Your task to perform on an android device: change text size in settings app Image 0: 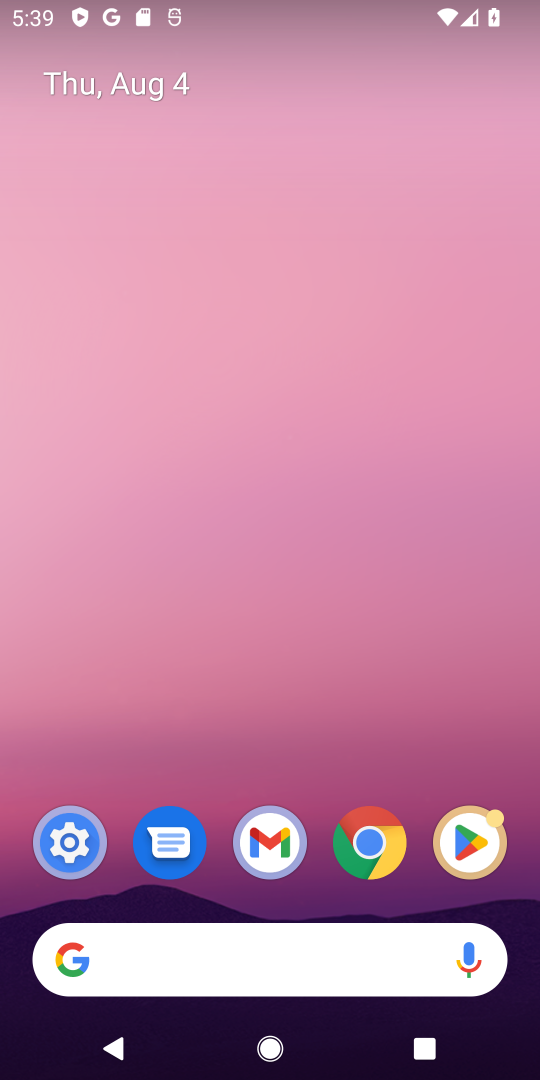
Step 0: drag from (433, 358) to (461, 119)
Your task to perform on an android device: change text size in settings app Image 1: 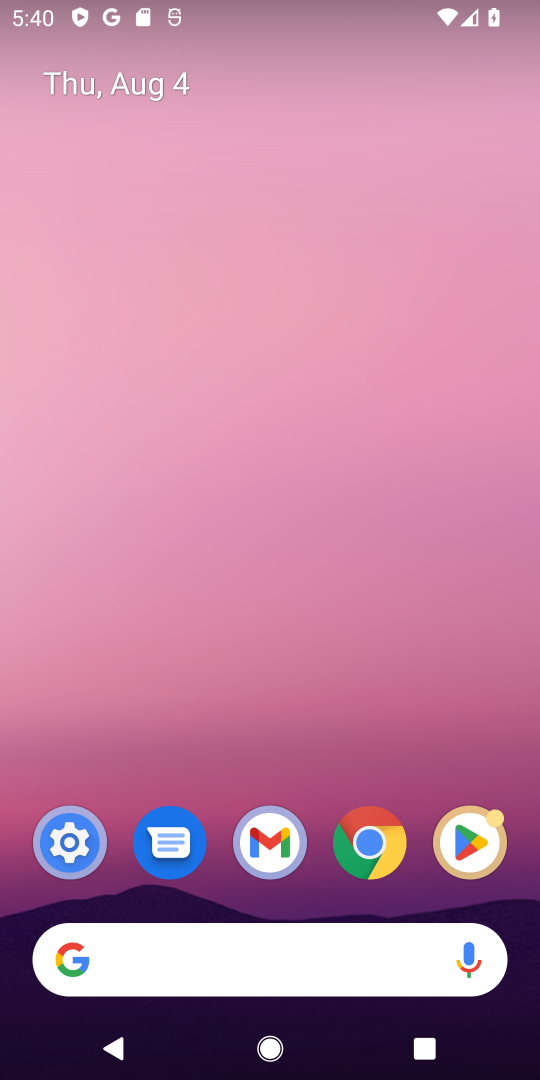
Step 1: drag from (399, 663) to (430, 93)
Your task to perform on an android device: change text size in settings app Image 2: 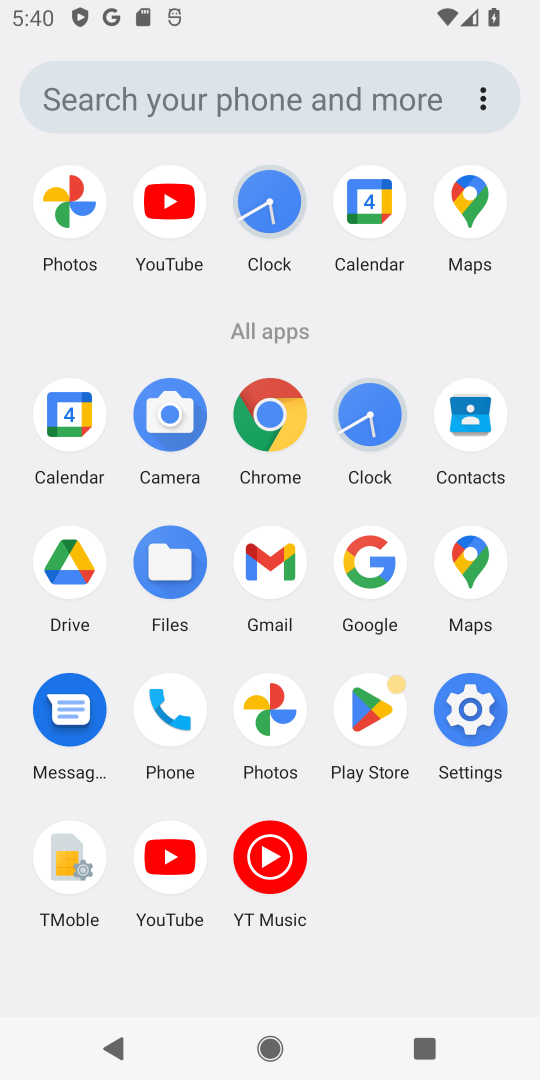
Step 2: click (475, 702)
Your task to perform on an android device: change text size in settings app Image 3: 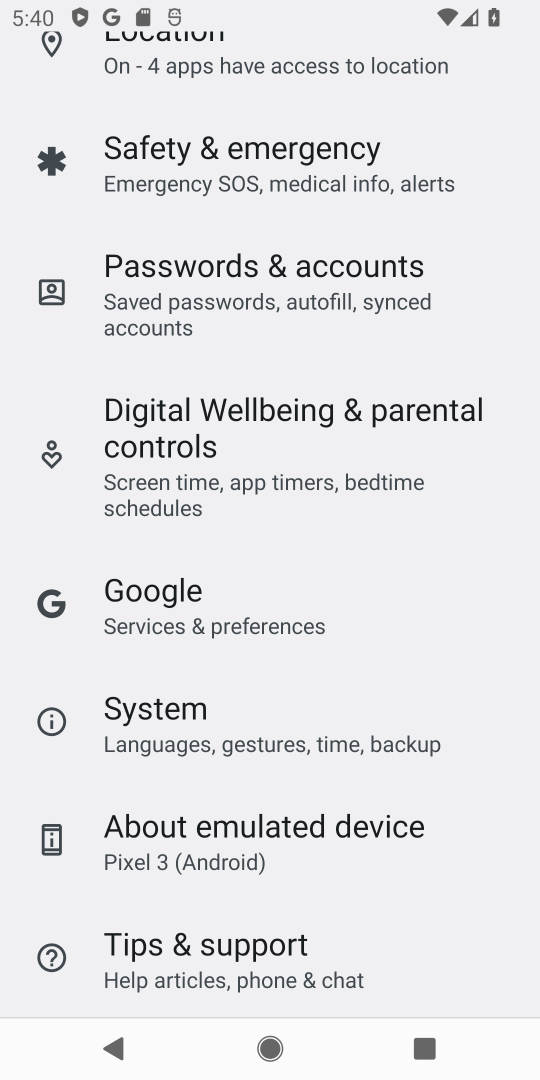
Step 3: drag from (389, 217) to (159, 963)
Your task to perform on an android device: change text size in settings app Image 4: 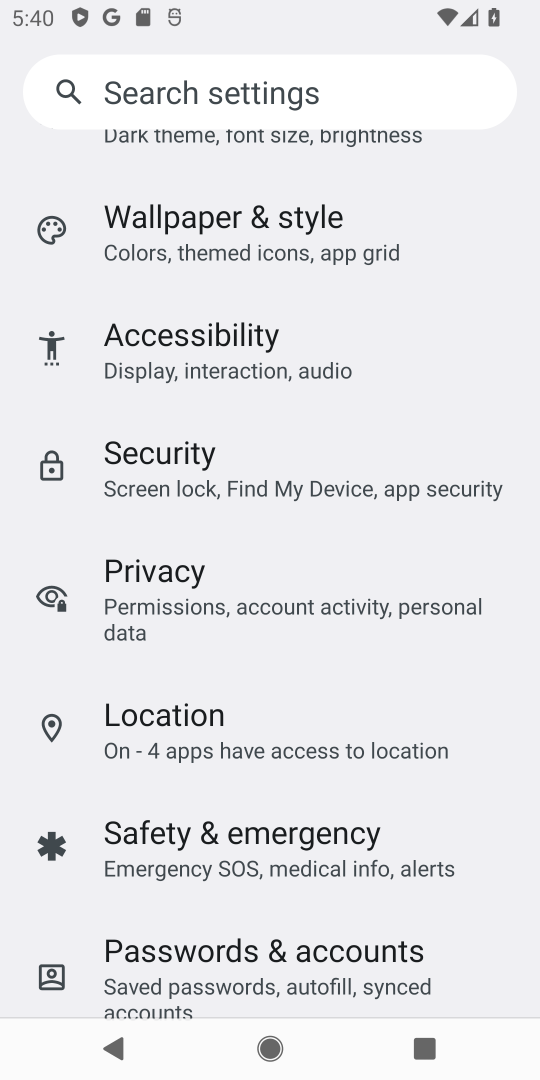
Step 4: drag from (454, 322) to (321, 903)
Your task to perform on an android device: change text size in settings app Image 5: 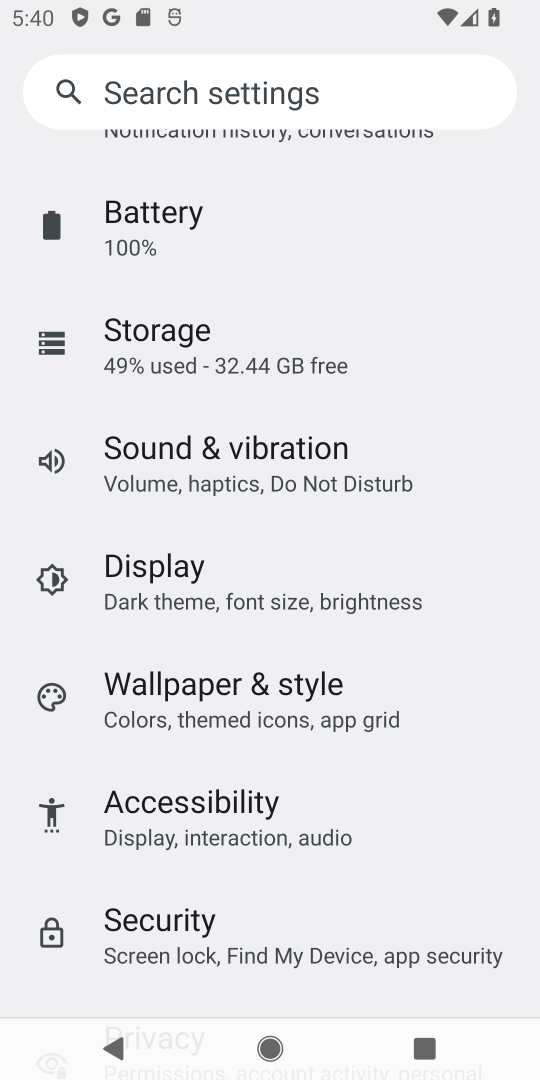
Step 5: drag from (407, 258) to (296, 751)
Your task to perform on an android device: change text size in settings app Image 6: 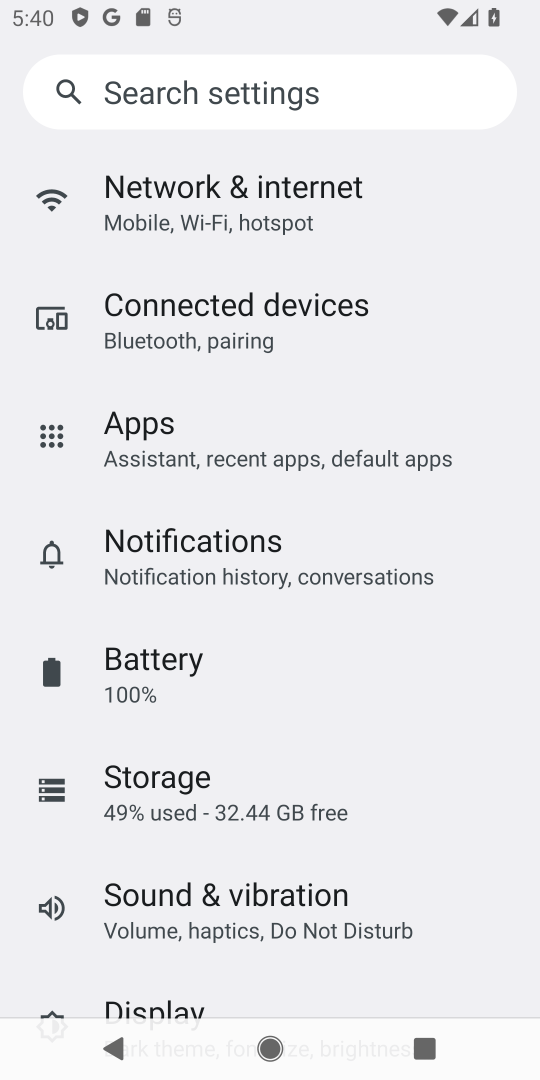
Step 6: drag from (422, 243) to (460, 3)
Your task to perform on an android device: change text size in settings app Image 7: 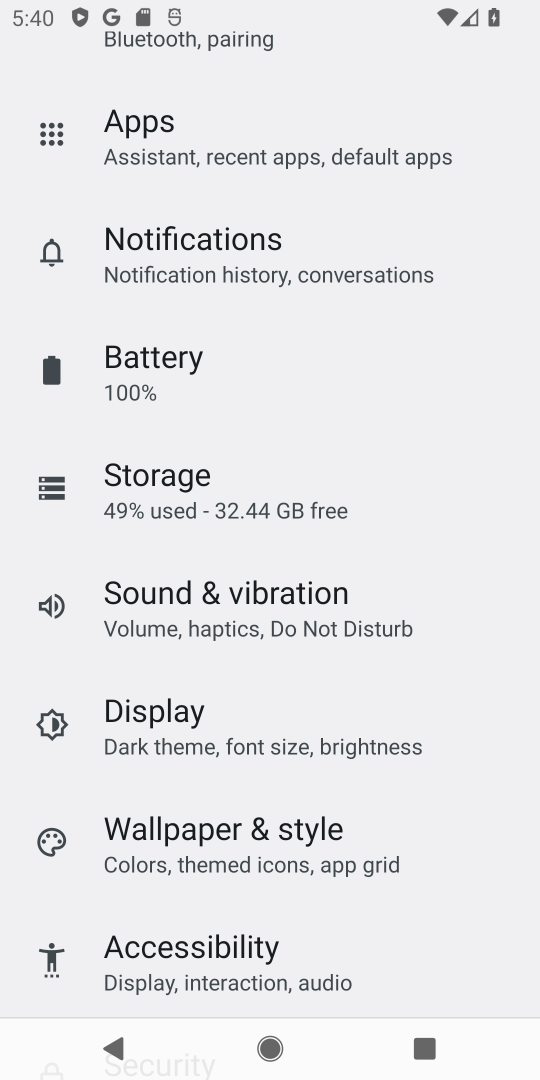
Step 7: click (216, 706)
Your task to perform on an android device: change text size in settings app Image 8: 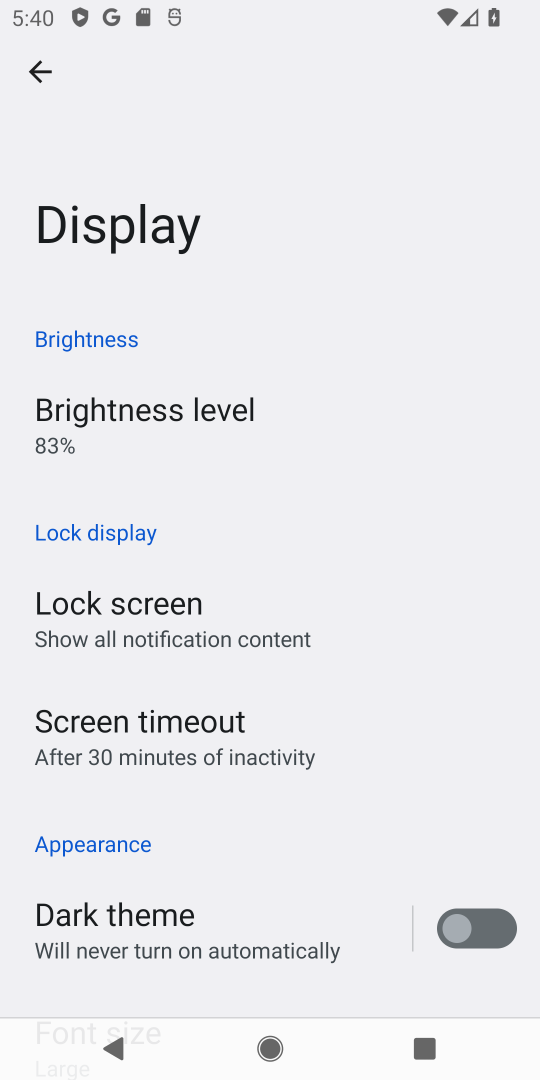
Step 8: drag from (267, 898) to (357, 230)
Your task to perform on an android device: change text size in settings app Image 9: 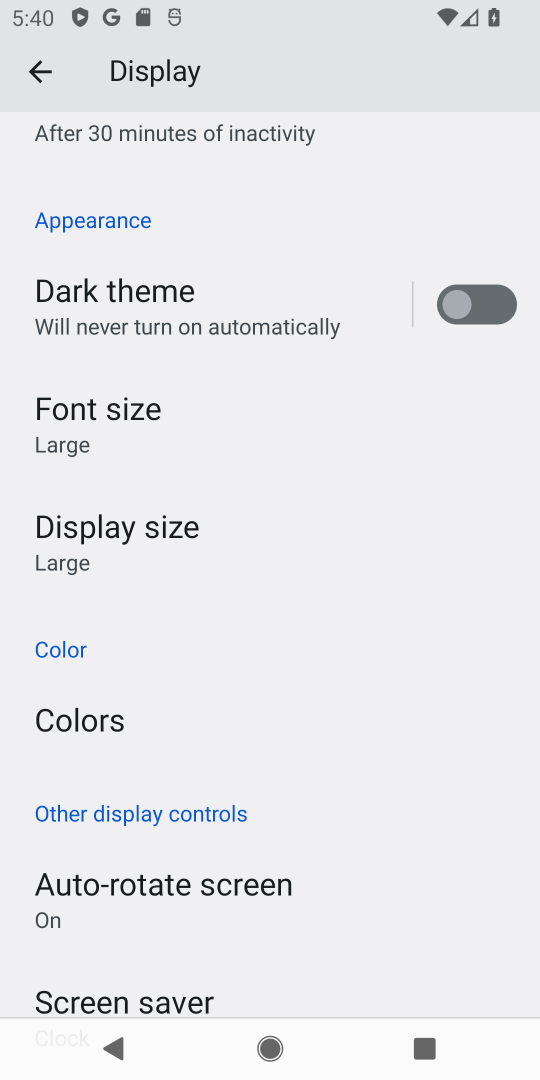
Step 9: click (114, 564)
Your task to perform on an android device: change text size in settings app Image 10: 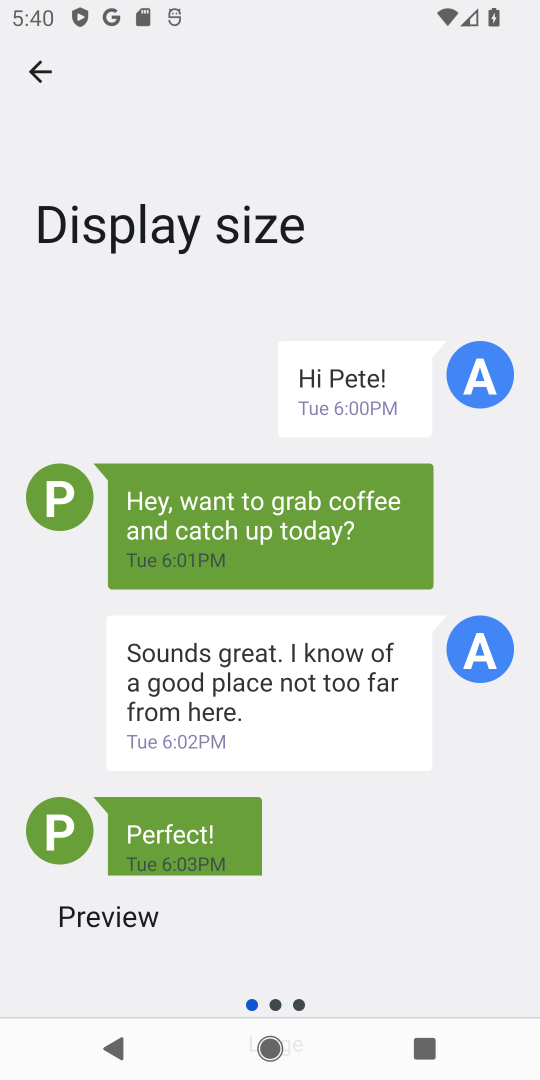
Step 10: drag from (325, 877) to (397, 325)
Your task to perform on an android device: change text size in settings app Image 11: 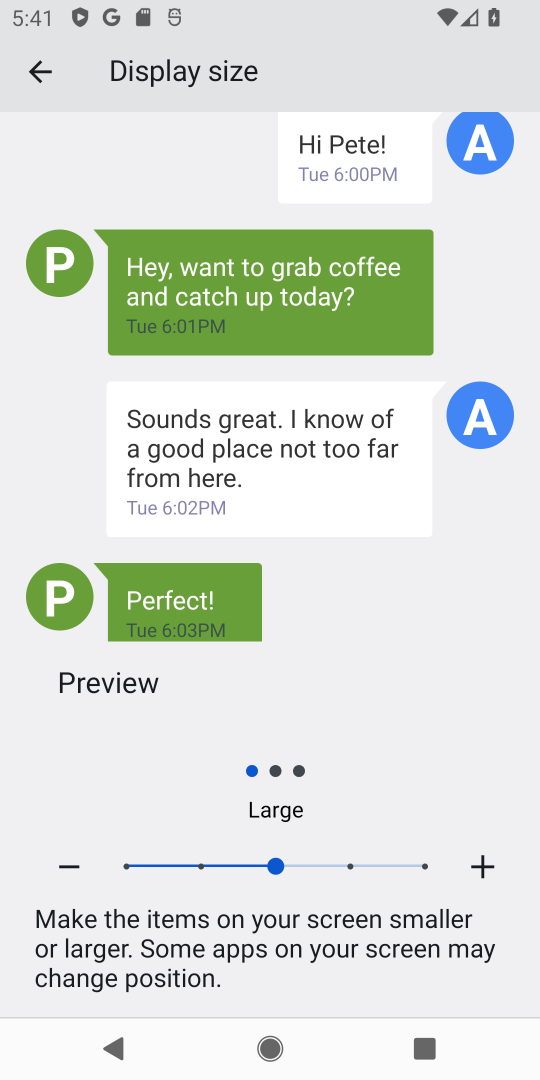
Step 11: click (200, 875)
Your task to perform on an android device: change text size in settings app Image 12: 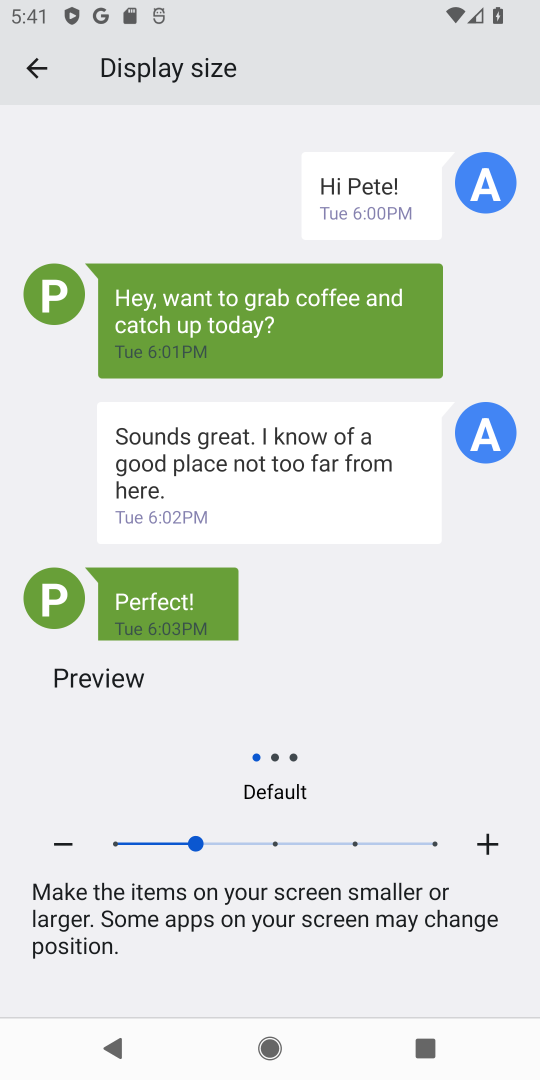
Step 12: task complete